Your task to perform on an android device: all mails in gmail Image 0: 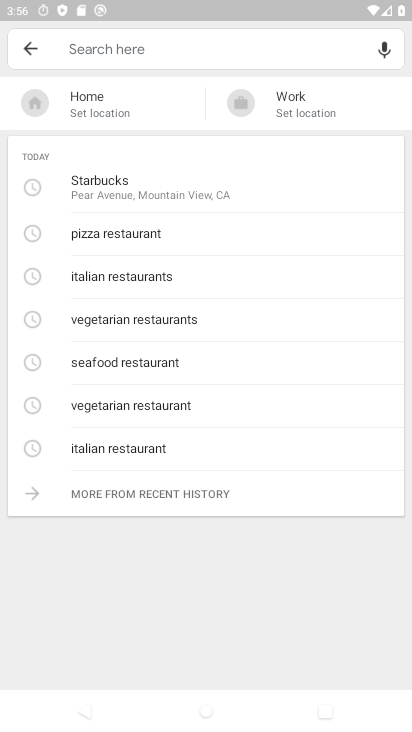
Step 0: press home button
Your task to perform on an android device: all mails in gmail Image 1: 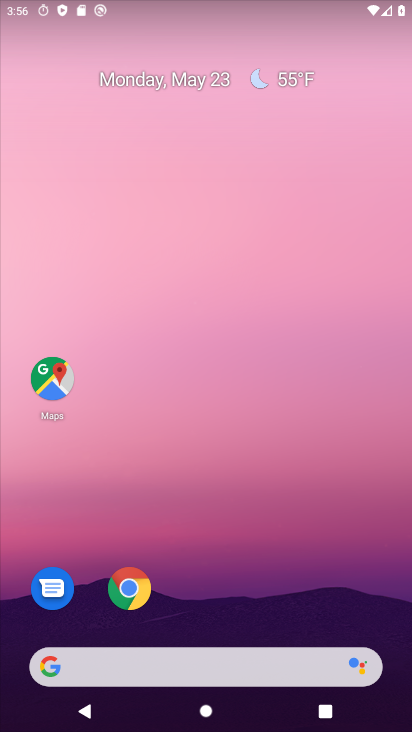
Step 1: drag from (203, 577) to (176, 100)
Your task to perform on an android device: all mails in gmail Image 2: 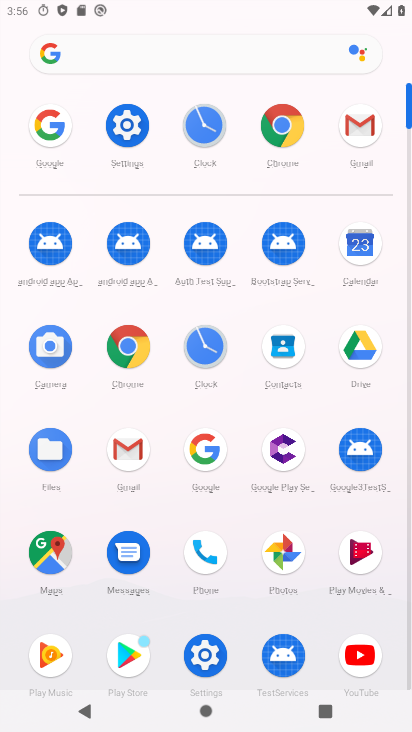
Step 2: click (360, 128)
Your task to perform on an android device: all mails in gmail Image 3: 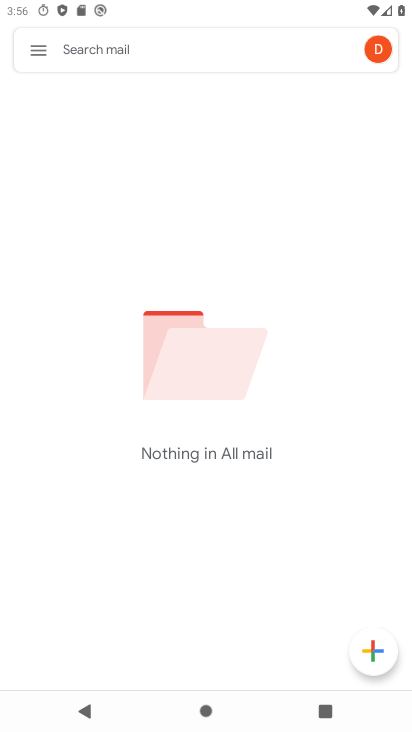
Step 3: task complete